Your task to perform on an android device: make emails show in primary in the gmail app Image 0: 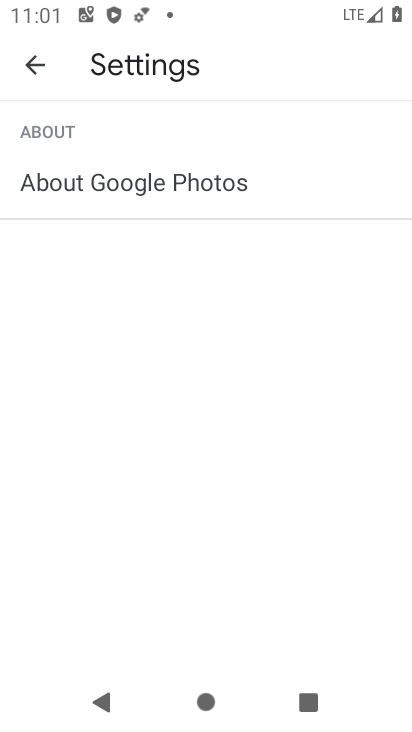
Step 0: press home button
Your task to perform on an android device: make emails show in primary in the gmail app Image 1: 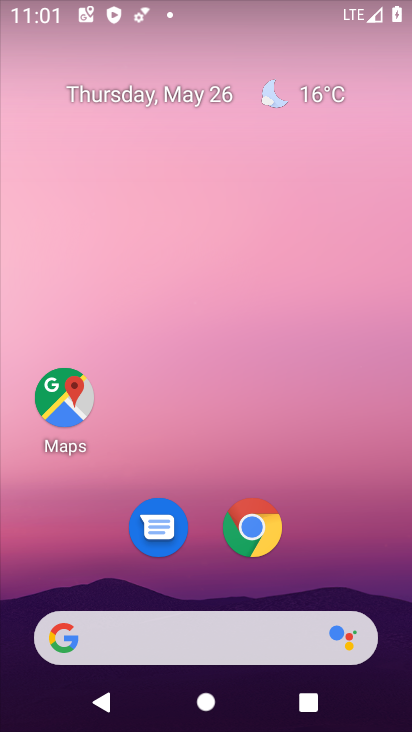
Step 1: drag from (298, 466) to (328, 16)
Your task to perform on an android device: make emails show in primary in the gmail app Image 2: 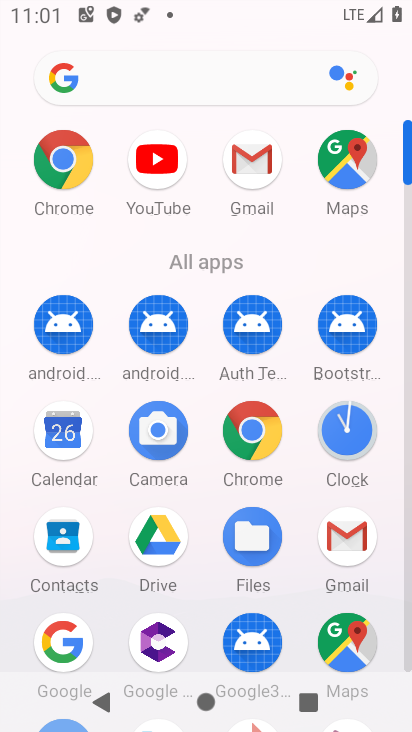
Step 2: click (346, 532)
Your task to perform on an android device: make emails show in primary in the gmail app Image 3: 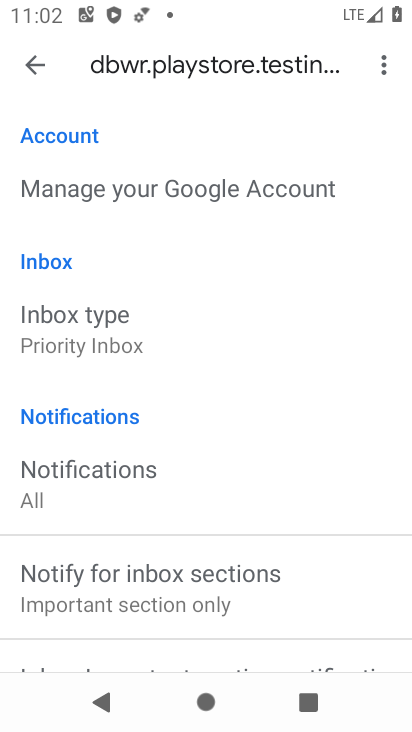
Step 3: click (121, 335)
Your task to perform on an android device: make emails show in primary in the gmail app Image 4: 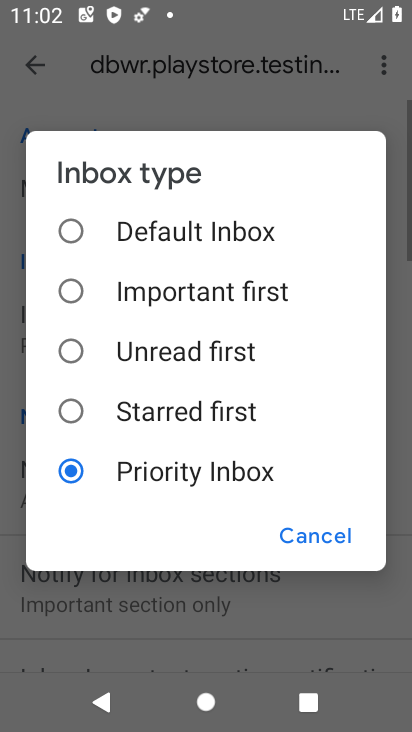
Step 4: click (120, 231)
Your task to perform on an android device: make emails show in primary in the gmail app Image 5: 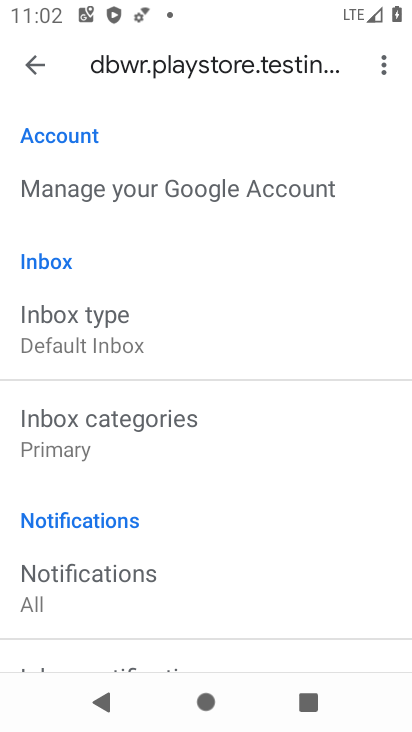
Step 5: task complete